Your task to perform on an android device: turn off sleep mode Image 0: 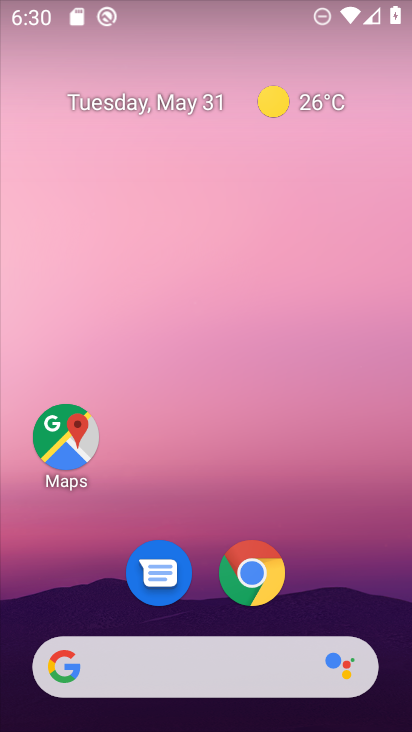
Step 0: drag from (389, 631) to (262, 50)
Your task to perform on an android device: turn off sleep mode Image 1: 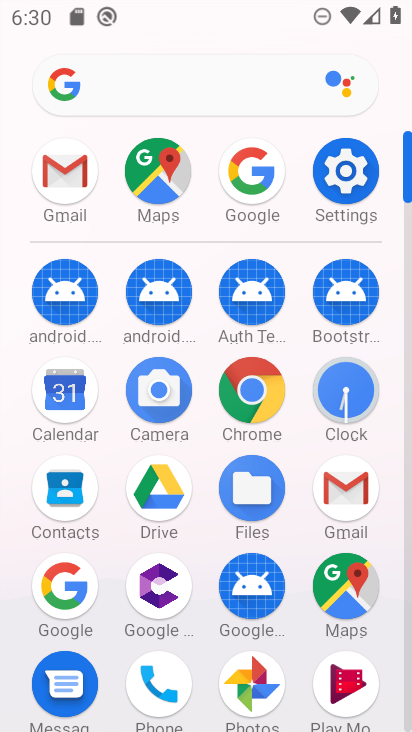
Step 1: click (337, 168)
Your task to perform on an android device: turn off sleep mode Image 2: 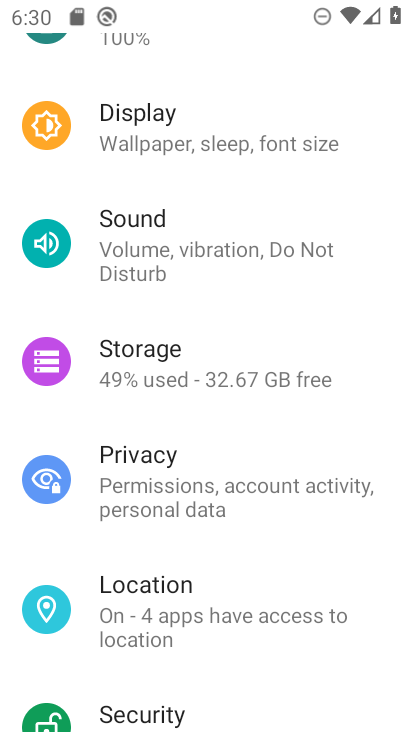
Step 2: task complete